Your task to perform on an android device: What is the recent news? Image 0: 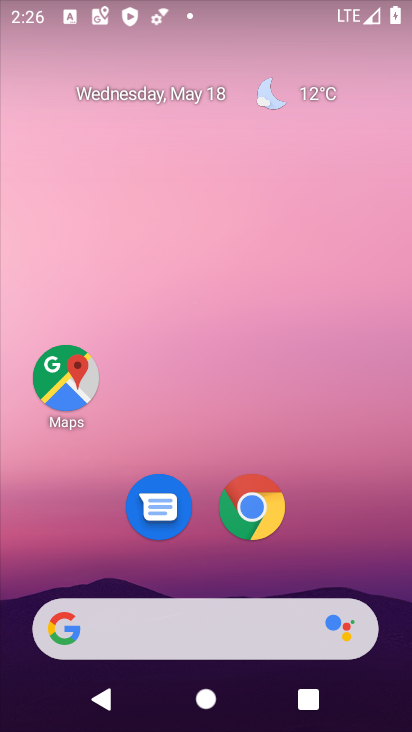
Step 0: drag from (5, 213) to (404, 380)
Your task to perform on an android device: What is the recent news? Image 1: 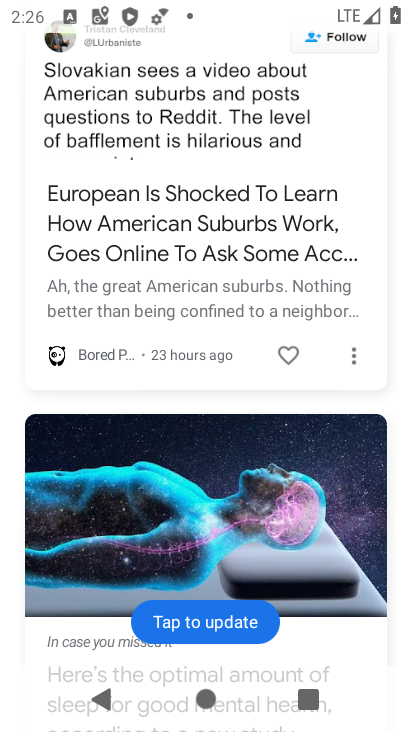
Step 1: task complete